Your task to perform on an android device: Check the news Image 0: 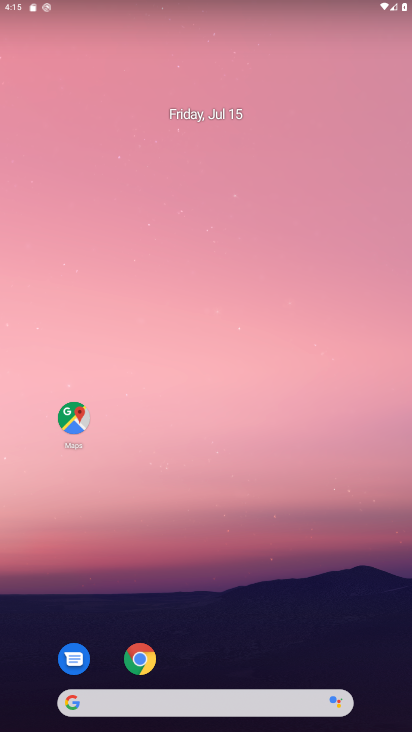
Step 0: drag from (258, 712) to (203, 0)
Your task to perform on an android device: Check the news Image 1: 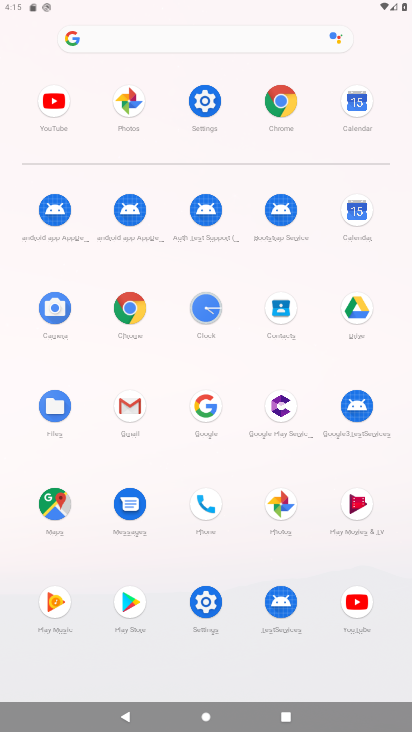
Step 1: click (134, 305)
Your task to perform on an android device: Check the news Image 2: 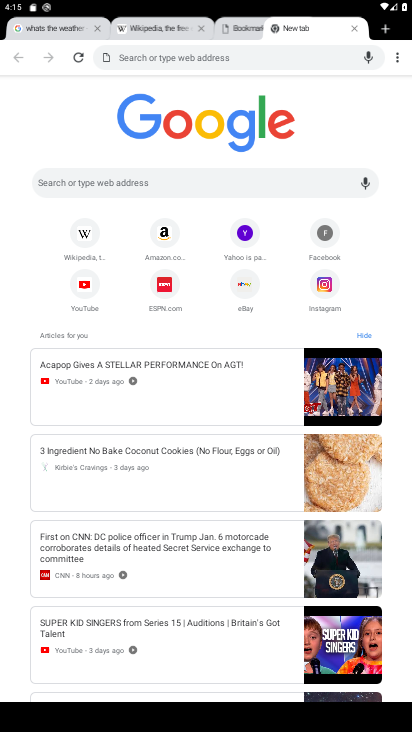
Step 2: type "check the news"
Your task to perform on an android device: Check the news Image 3: 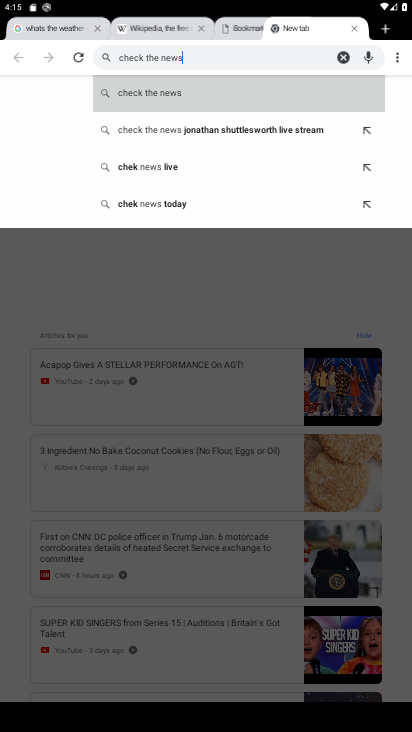
Step 3: click (172, 85)
Your task to perform on an android device: Check the news Image 4: 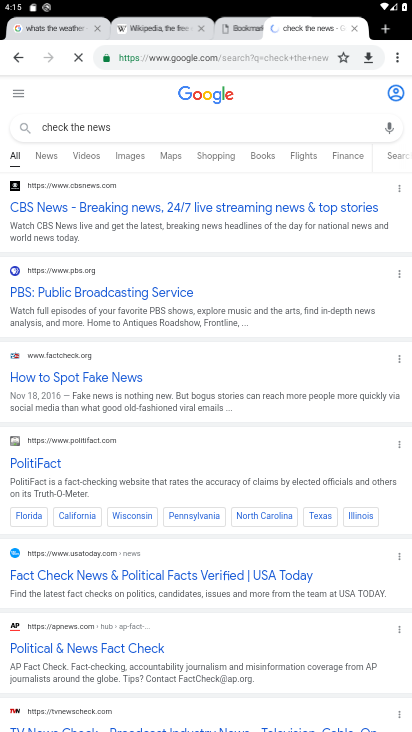
Step 4: task complete